Your task to perform on an android device: Search for a new desk on Ikea Image 0: 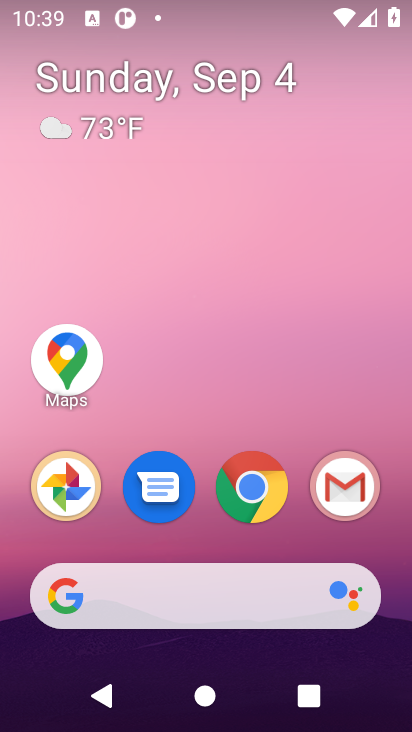
Step 0: click (195, 584)
Your task to perform on an android device: Search for a new desk on Ikea Image 1: 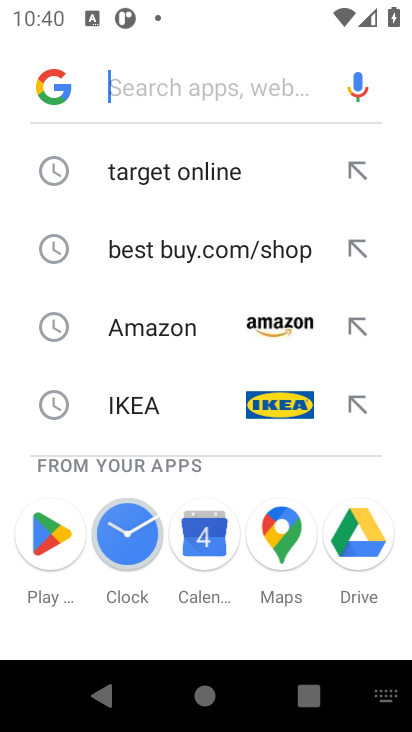
Step 1: type "lkea"
Your task to perform on an android device: Search for a new desk on Ikea Image 2: 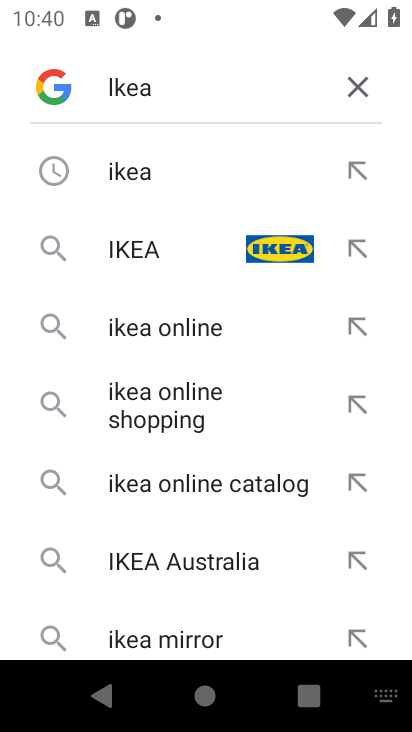
Step 2: click (219, 231)
Your task to perform on an android device: Search for a new desk on Ikea Image 3: 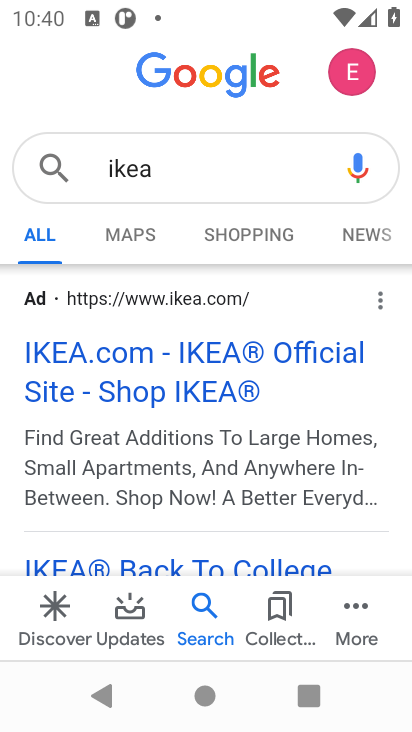
Step 3: click (144, 352)
Your task to perform on an android device: Search for a new desk on Ikea Image 4: 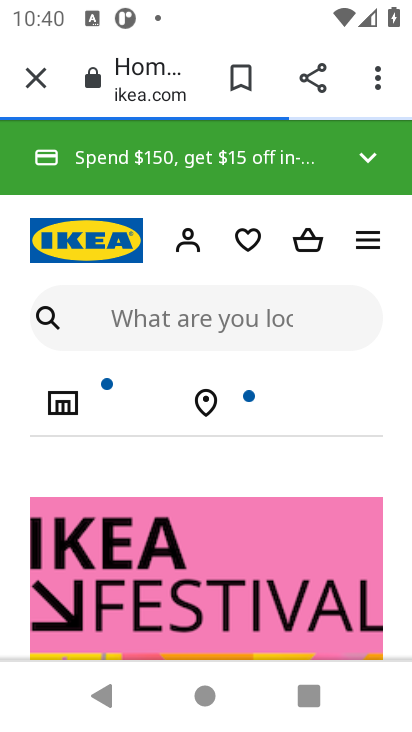
Step 4: click (145, 321)
Your task to perform on an android device: Search for a new desk on Ikea Image 5: 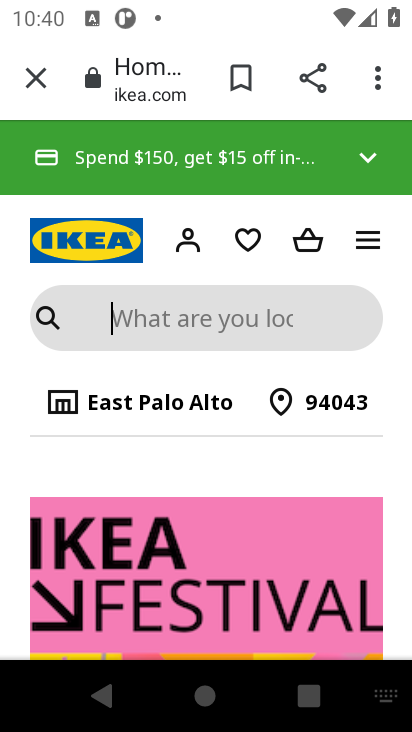
Step 5: type "desk"
Your task to perform on an android device: Search for a new desk on Ikea Image 6: 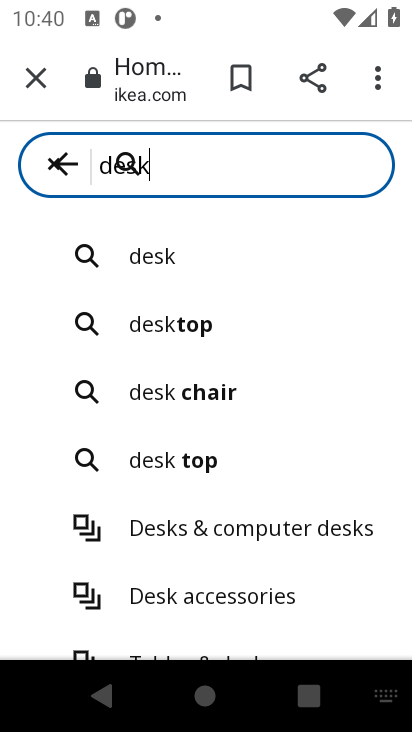
Step 6: click (151, 240)
Your task to perform on an android device: Search for a new desk on Ikea Image 7: 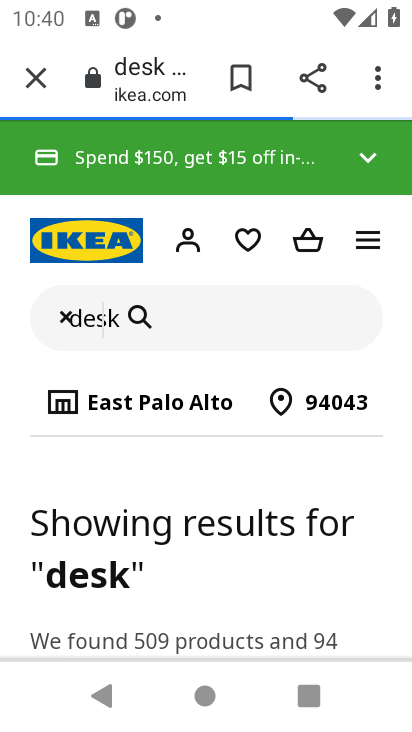
Step 7: task complete